Your task to perform on an android device: change the clock style Image 0: 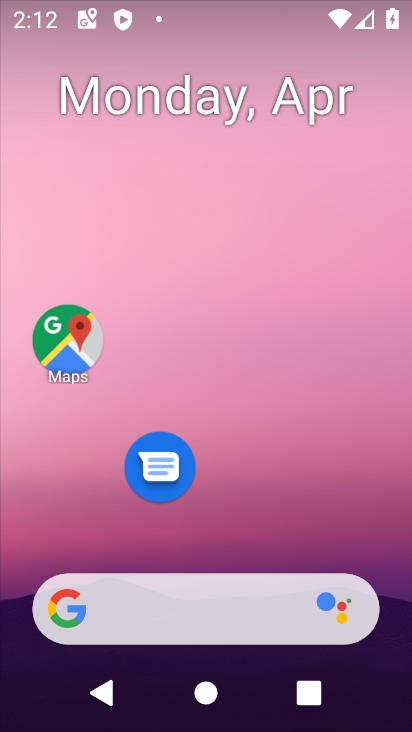
Step 0: drag from (254, 504) to (370, 45)
Your task to perform on an android device: change the clock style Image 1: 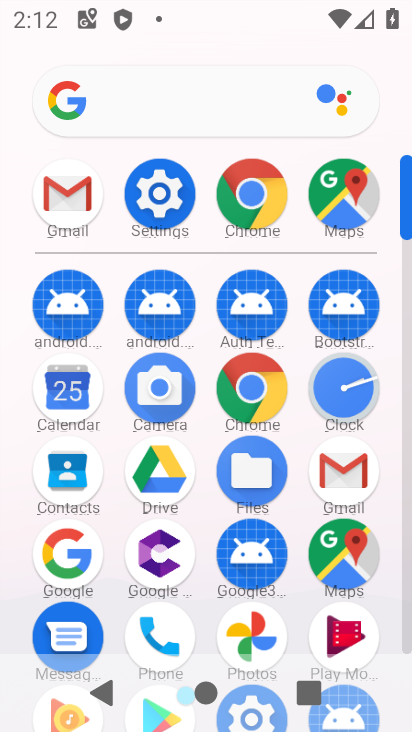
Step 1: click (338, 389)
Your task to perform on an android device: change the clock style Image 2: 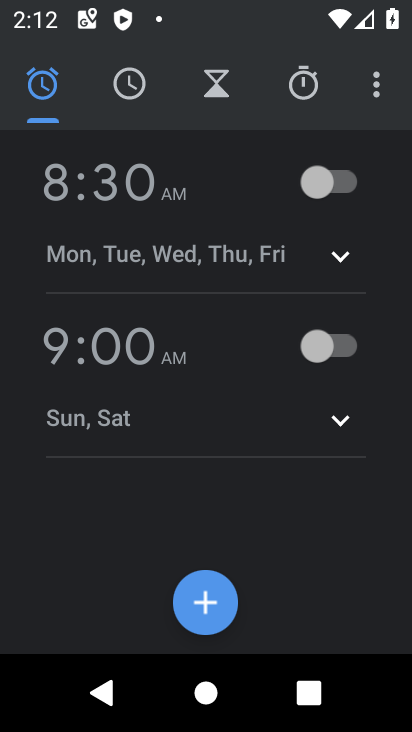
Step 2: click (361, 93)
Your task to perform on an android device: change the clock style Image 3: 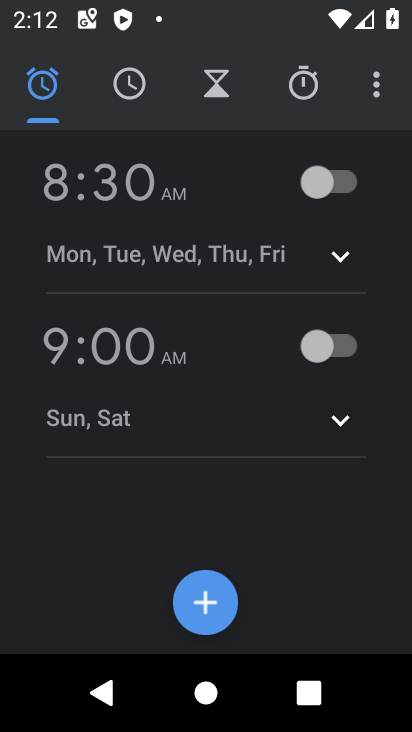
Step 3: click (362, 92)
Your task to perform on an android device: change the clock style Image 4: 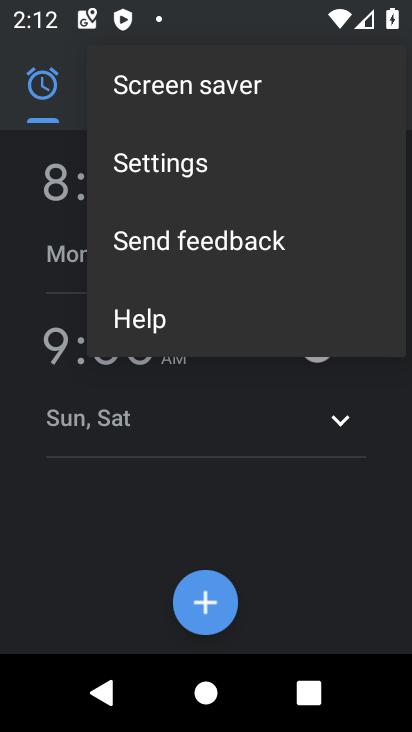
Step 4: click (264, 151)
Your task to perform on an android device: change the clock style Image 5: 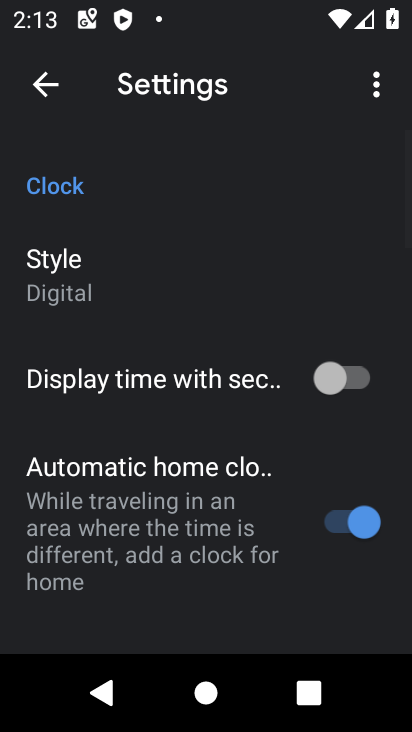
Step 5: click (80, 260)
Your task to perform on an android device: change the clock style Image 6: 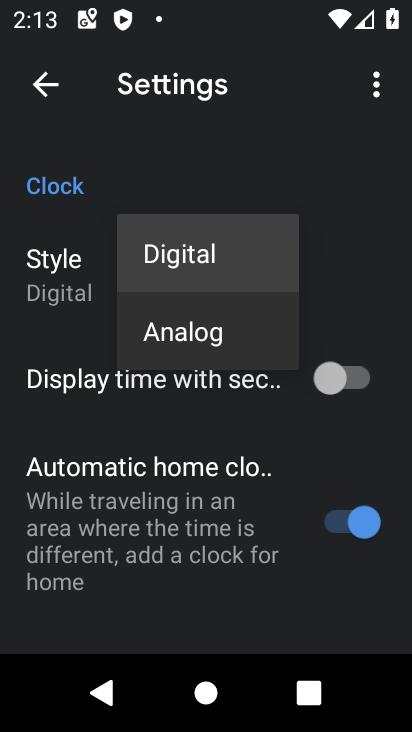
Step 6: click (191, 346)
Your task to perform on an android device: change the clock style Image 7: 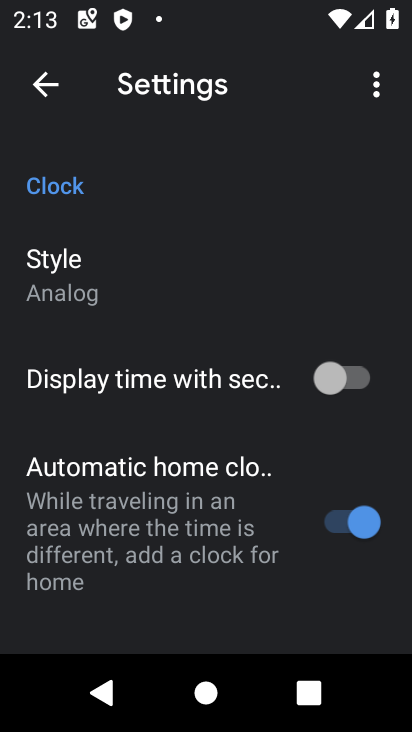
Step 7: task complete